Your task to perform on an android device: find snoozed emails in the gmail app Image 0: 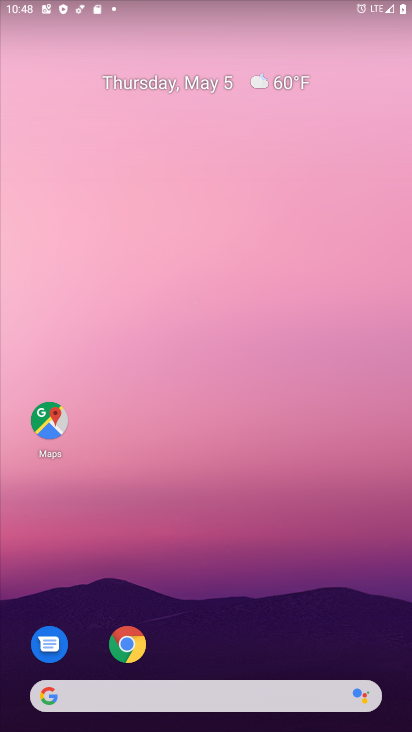
Step 0: drag from (273, 309) to (265, 218)
Your task to perform on an android device: find snoozed emails in the gmail app Image 1: 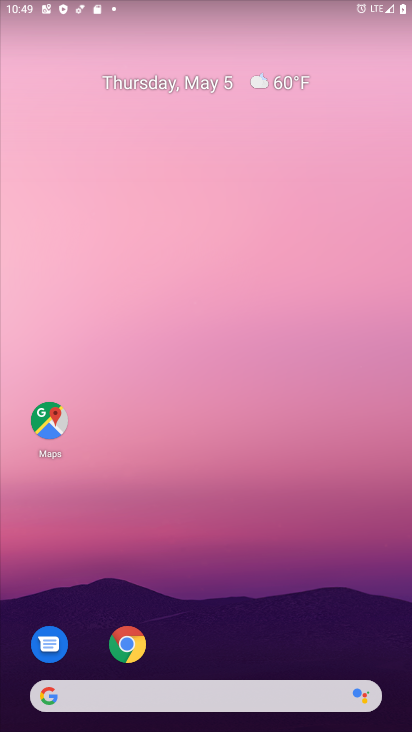
Step 1: drag from (287, 538) to (291, 187)
Your task to perform on an android device: find snoozed emails in the gmail app Image 2: 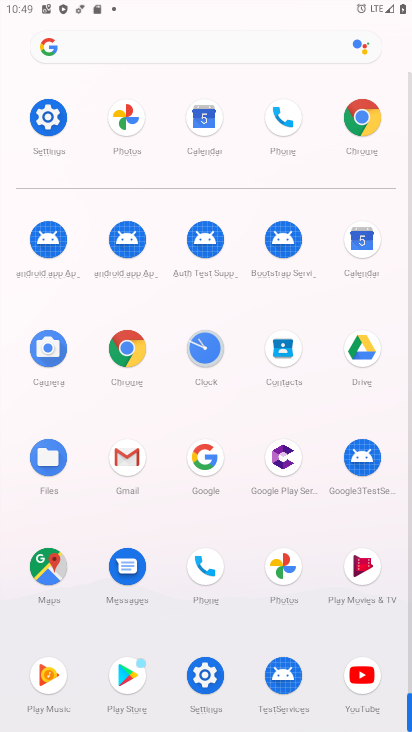
Step 2: click (134, 463)
Your task to perform on an android device: find snoozed emails in the gmail app Image 3: 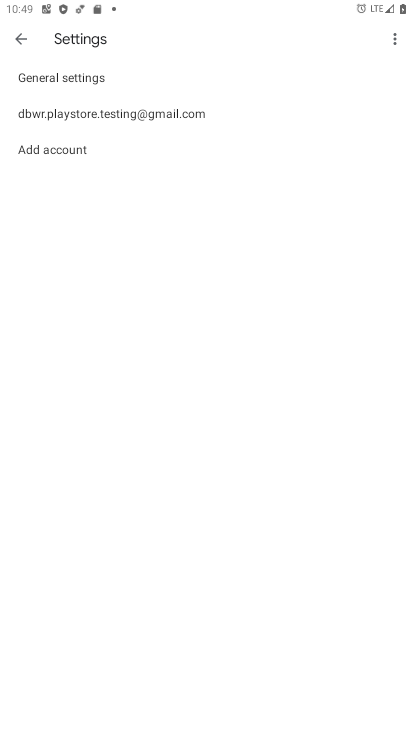
Step 3: press home button
Your task to perform on an android device: find snoozed emails in the gmail app Image 4: 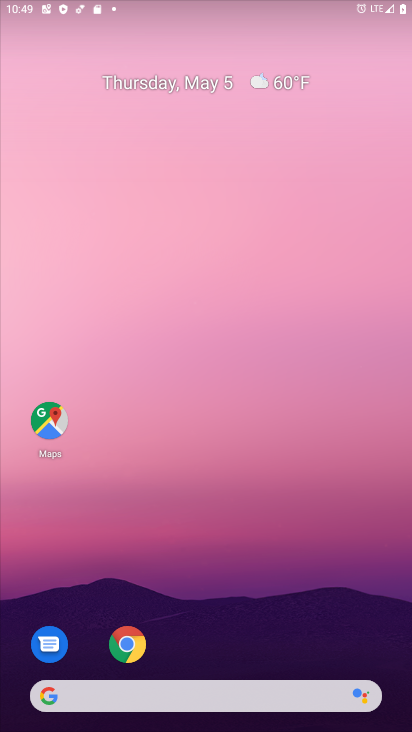
Step 4: drag from (250, 644) to (284, 219)
Your task to perform on an android device: find snoozed emails in the gmail app Image 5: 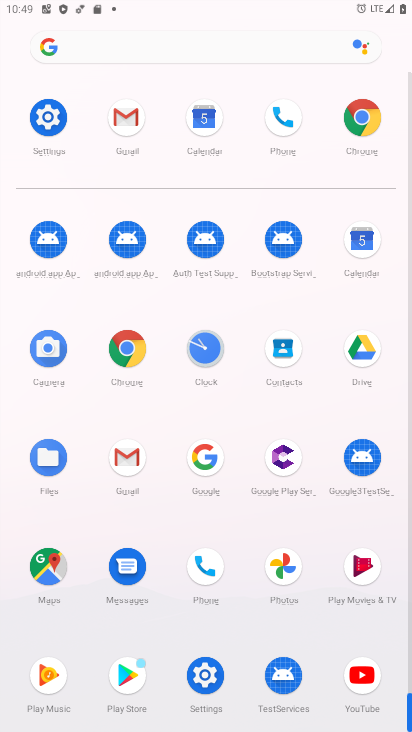
Step 5: click (135, 456)
Your task to perform on an android device: find snoozed emails in the gmail app Image 6: 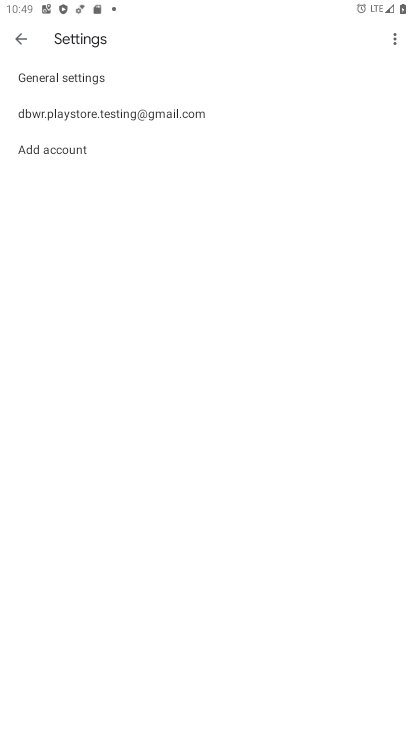
Step 6: click (111, 115)
Your task to perform on an android device: find snoozed emails in the gmail app Image 7: 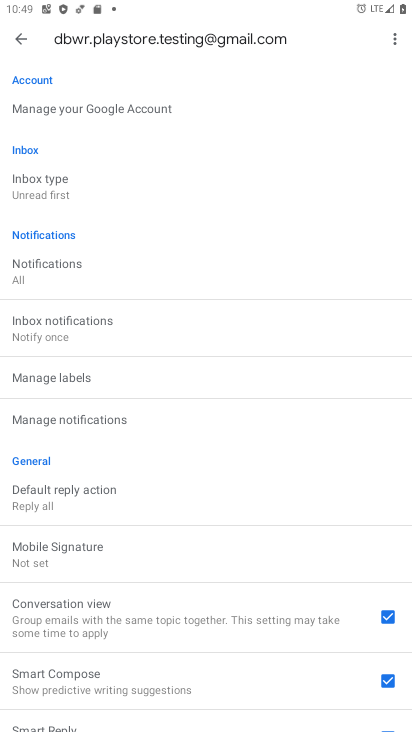
Step 7: click (16, 39)
Your task to perform on an android device: find snoozed emails in the gmail app Image 8: 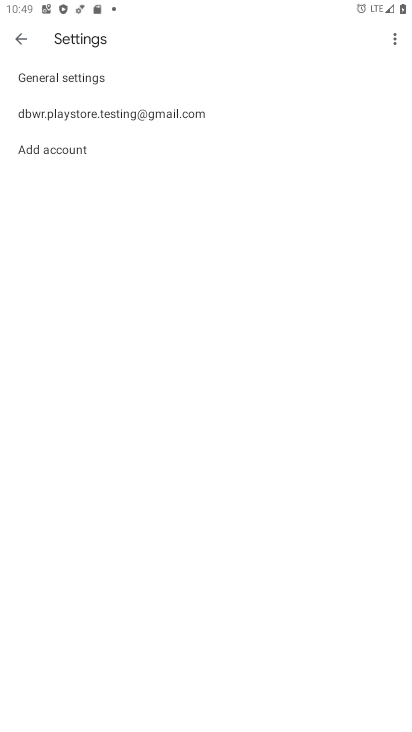
Step 8: press back button
Your task to perform on an android device: find snoozed emails in the gmail app Image 9: 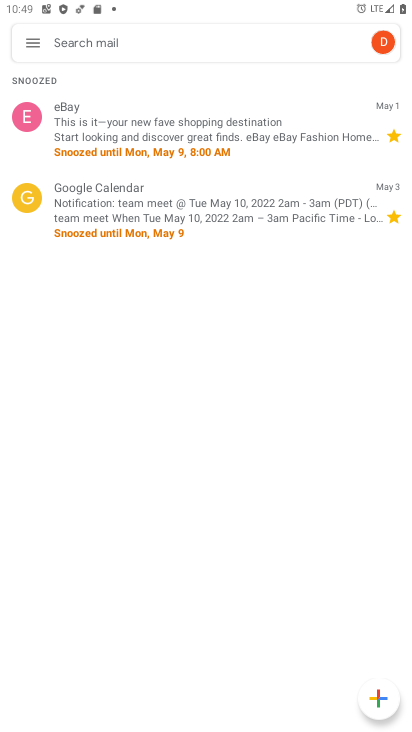
Step 9: click (29, 51)
Your task to perform on an android device: find snoozed emails in the gmail app Image 10: 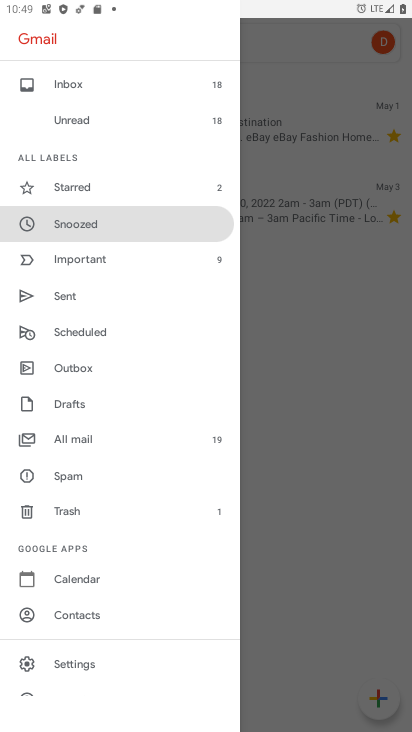
Step 10: click (90, 221)
Your task to perform on an android device: find snoozed emails in the gmail app Image 11: 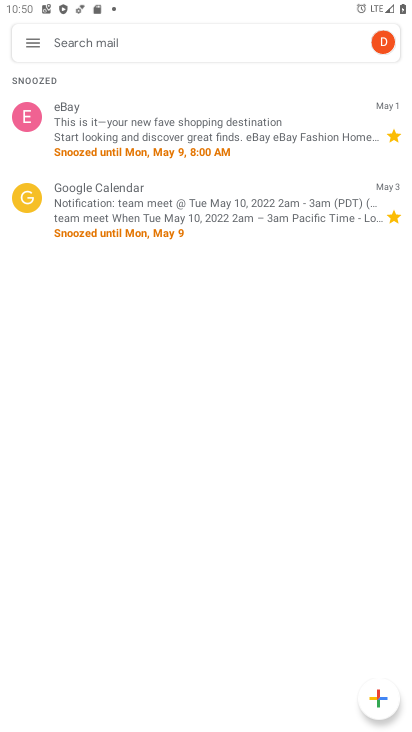
Step 11: task complete